Your task to perform on an android device: Open the Play Movies app and select the watchlist tab. Image 0: 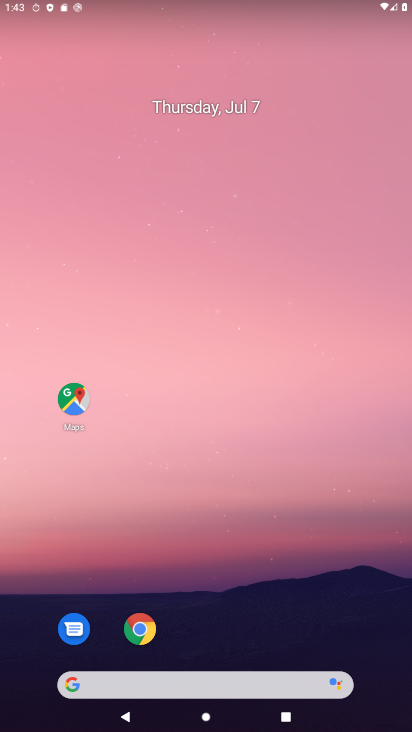
Step 0: drag from (389, 581) to (192, 187)
Your task to perform on an android device: Open the Play Movies app and select the watchlist tab. Image 1: 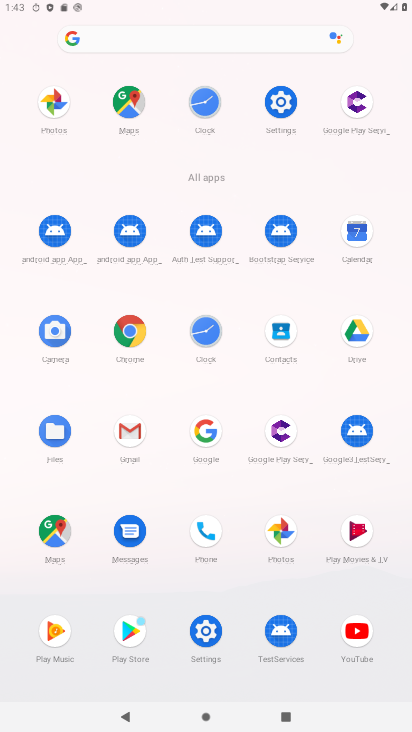
Step 1: click (346, 519)
Your task to perform on an android device: Open the Play Movies app and select the watchlist tab. Image 2: 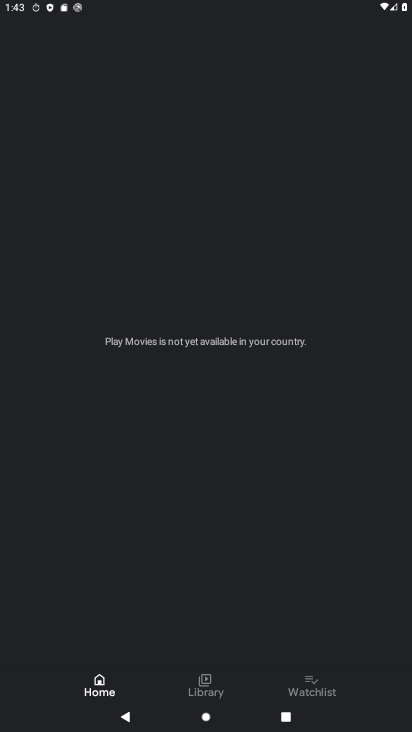
Step 2: click (320, 681)
Your task to perform on an android device: Open the Play Movies app and select the watchlist tab. Image 3: 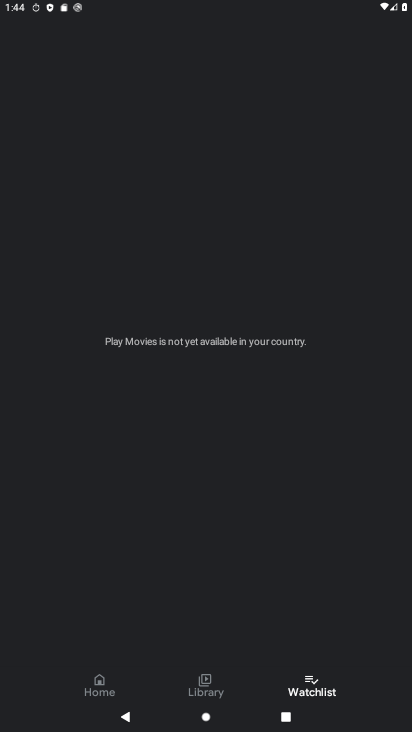
Step 3: task complete